Your task to perform on an android device: check android version Image 0: 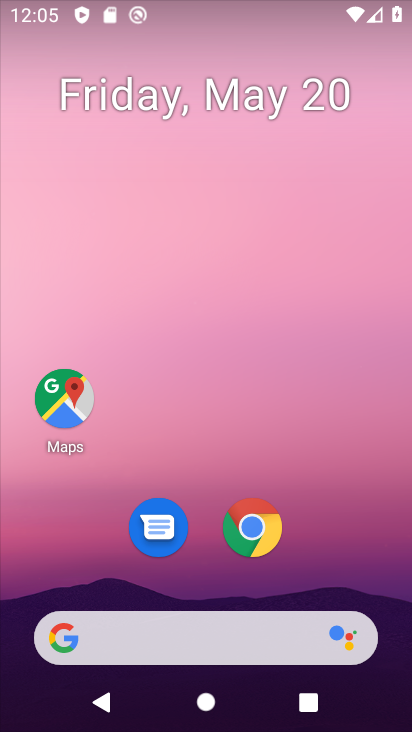
Step 0: press home button
Your task to perform on an android device: check android version Image 1: 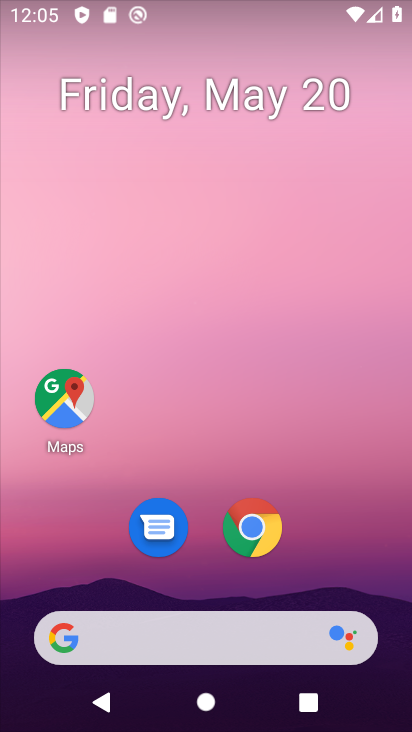
Step 1: press home button
Your task to perform on an android device: check android version Image 2: 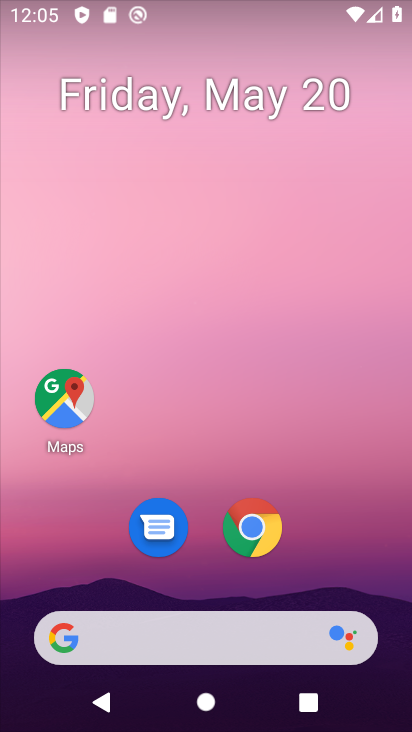
Step 2: drag from (396, 643) to (283, 162)
Your task to perform on an android device: check android version Image 3: 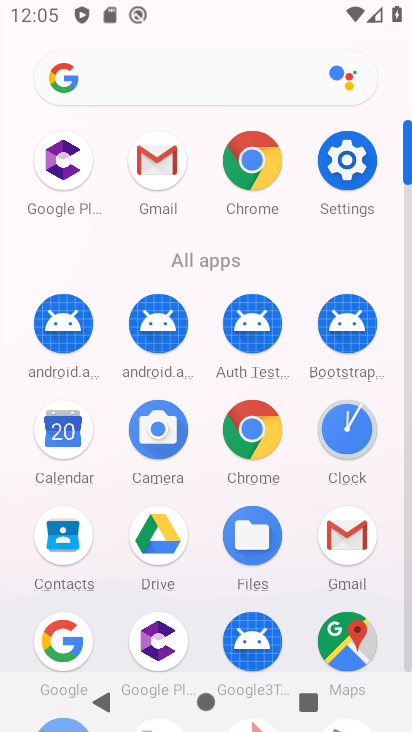
Step 3: click (324, 162)
Your task to perform on an android device: check android version Image 4: 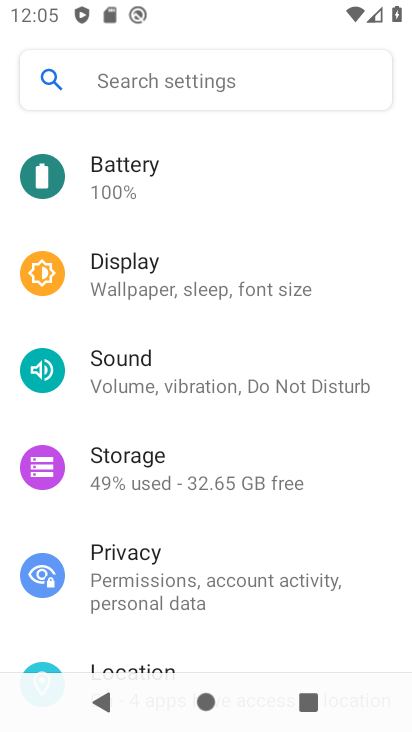
Step 4: drag from (219, 205) to (287, 6)
Your task to perform on an android device: check android version Image 5: 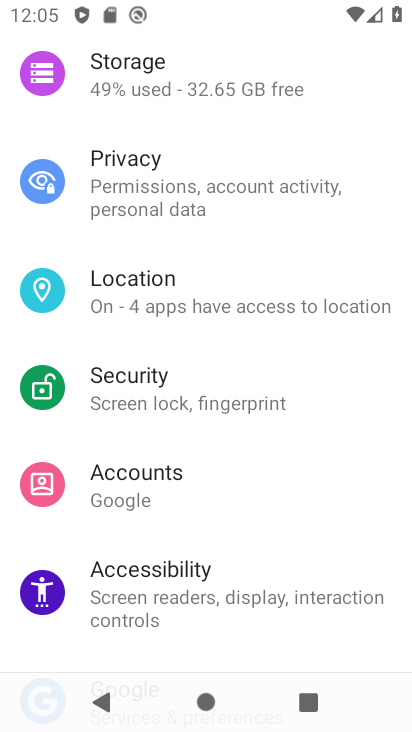
Step 5: drag from (244, 441) to (207, 60)
Your task to perform on an android device: check android version Image 6: 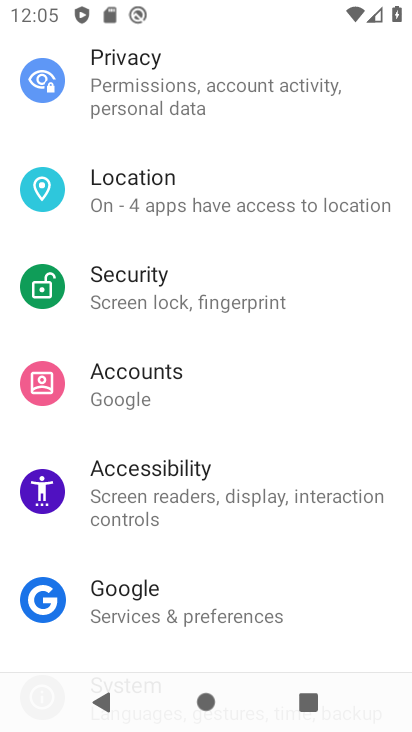
Step 6: drag from (202, 593) to (237, 175)
Your task to perform on an android device: check android version Image 7: 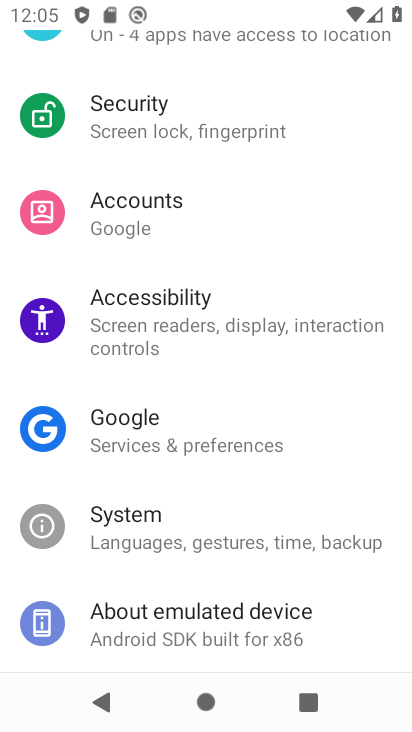
Step 7: click (212, 639)
Your task to perform on an android device: check android version Image 8: 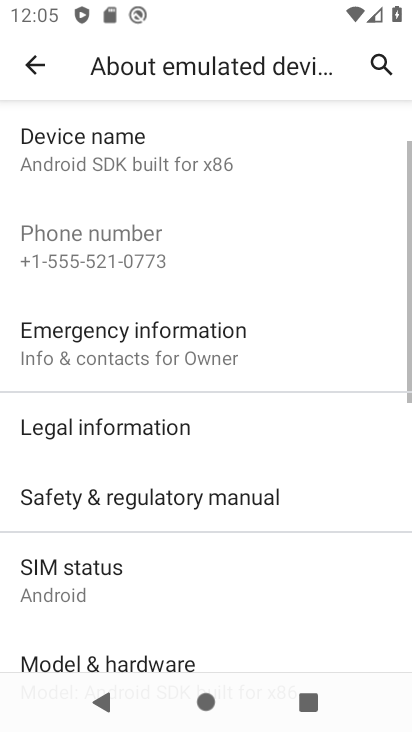
Step 8: drag from (215, 598) to (219, 209)
Your task to perform on an android device: check android version Image 9: 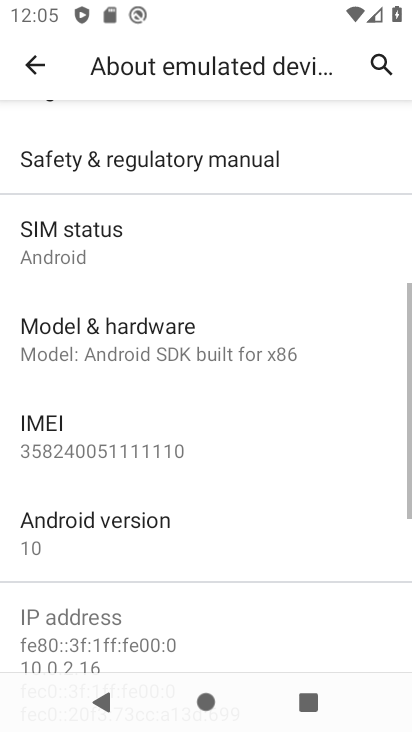
Step 9: click (150, 501)
Your task to perform on an android device: check android version Image 10: 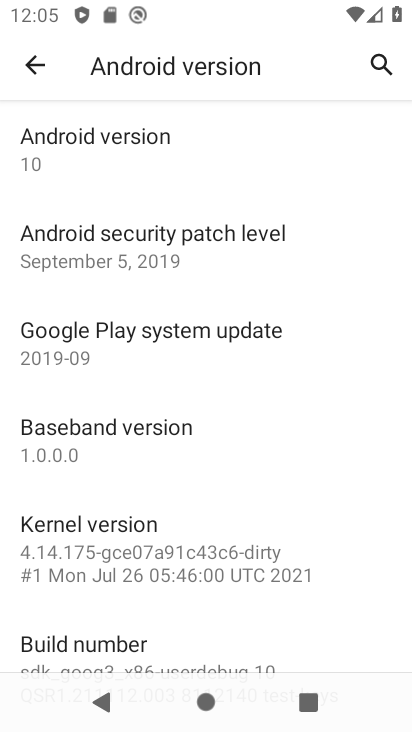
Step 10: task complete